Your task to perform on an android device: turn off airplane mode Image 0: 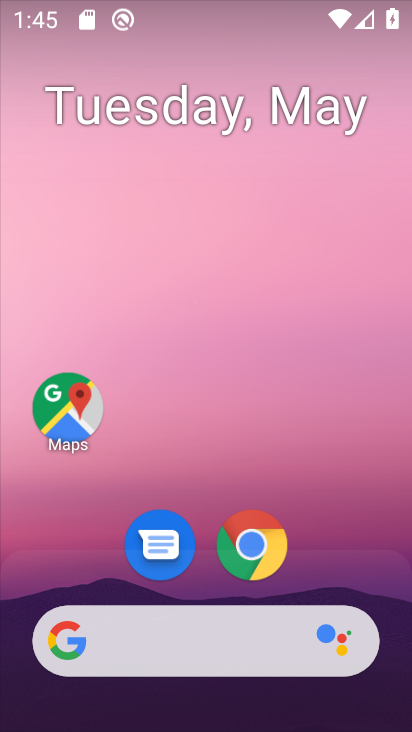
Step 0: drag from (326, 503) to (243, 29)
Your task to perform on an android device: turn off airplane mode Image 1: 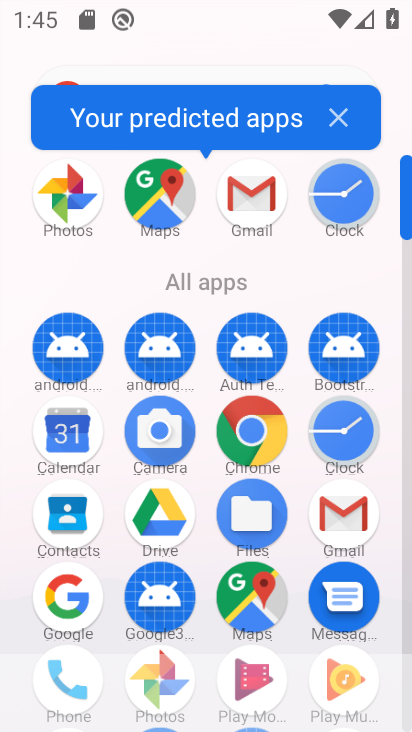
Step 1: drag from (16, 553) to (12, 233)
Your task to perform on an android device: turn off airplane mode Image 2: 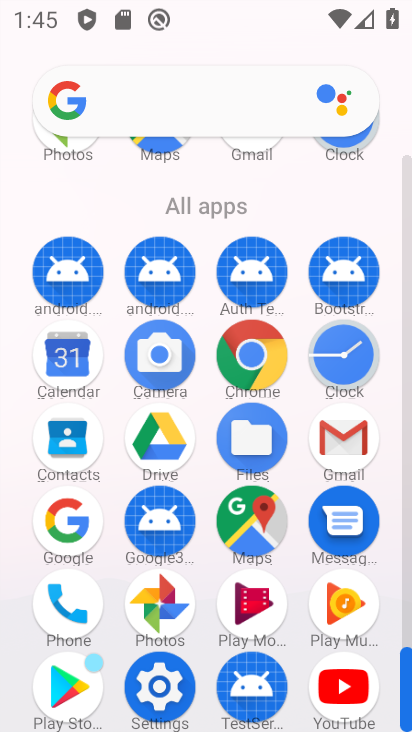
Step 2: click (160, 685)
Your task to perform on an android device: turn off airplane mode Image 3: 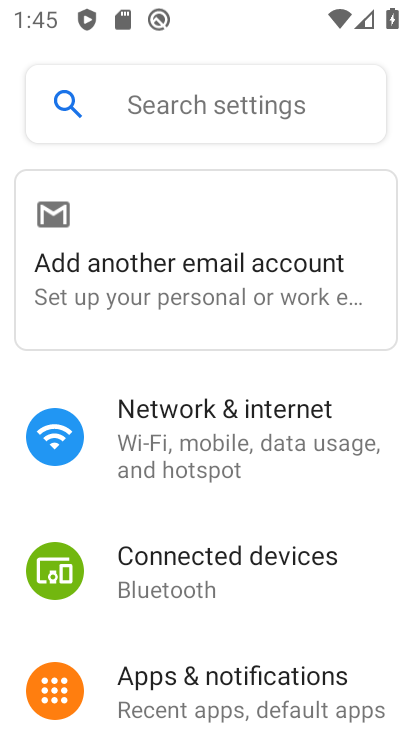
Step 3: click (227, 429)
Your task to perform on an android device: turn off airplane mode Image 4: 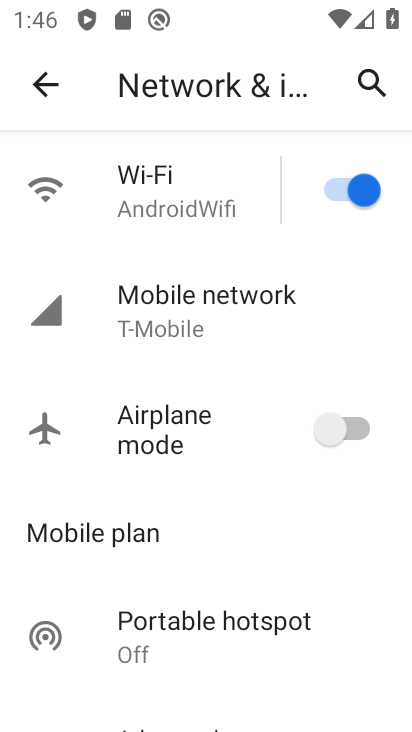
Step 4: click (327, 430)
Your task to perform on an android device: turn off airplane mode Image 5: 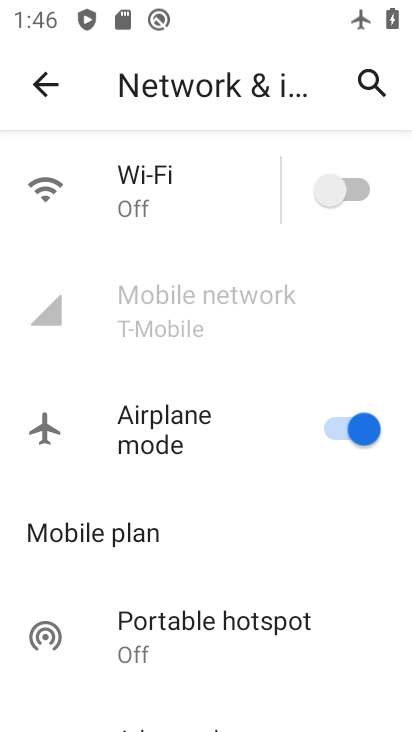
Step 5: click (327, 430)
Your task to perform on an android device: turn off airplane mode Image 6: 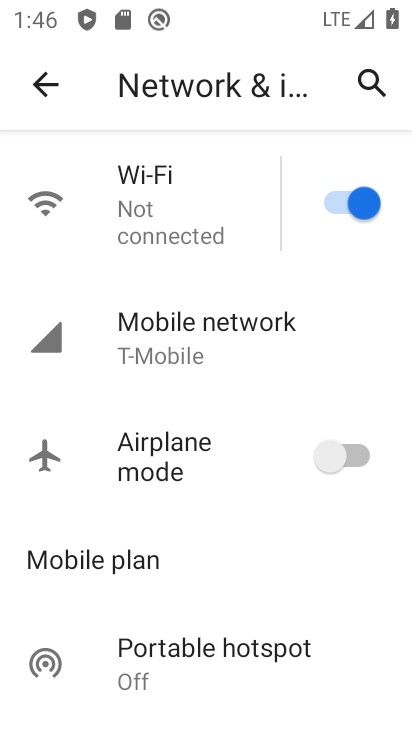
Step 6: task complete